Your task to perform on an android device: open the mobile data screen to see how much data has been used Image 0: 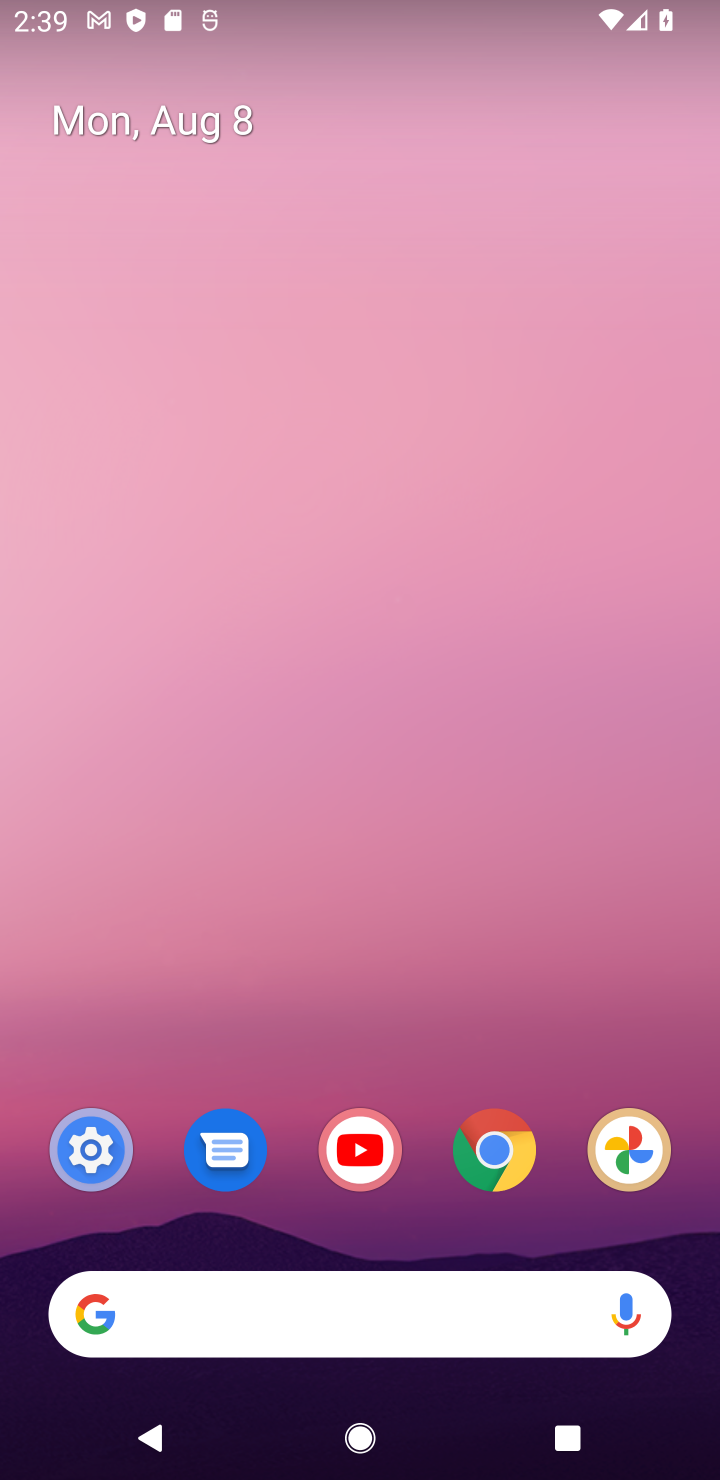
Step 0: click (74, 1178)
Your task to perform on an android device: open the mobile data screen to see how much data has been used Image 1: 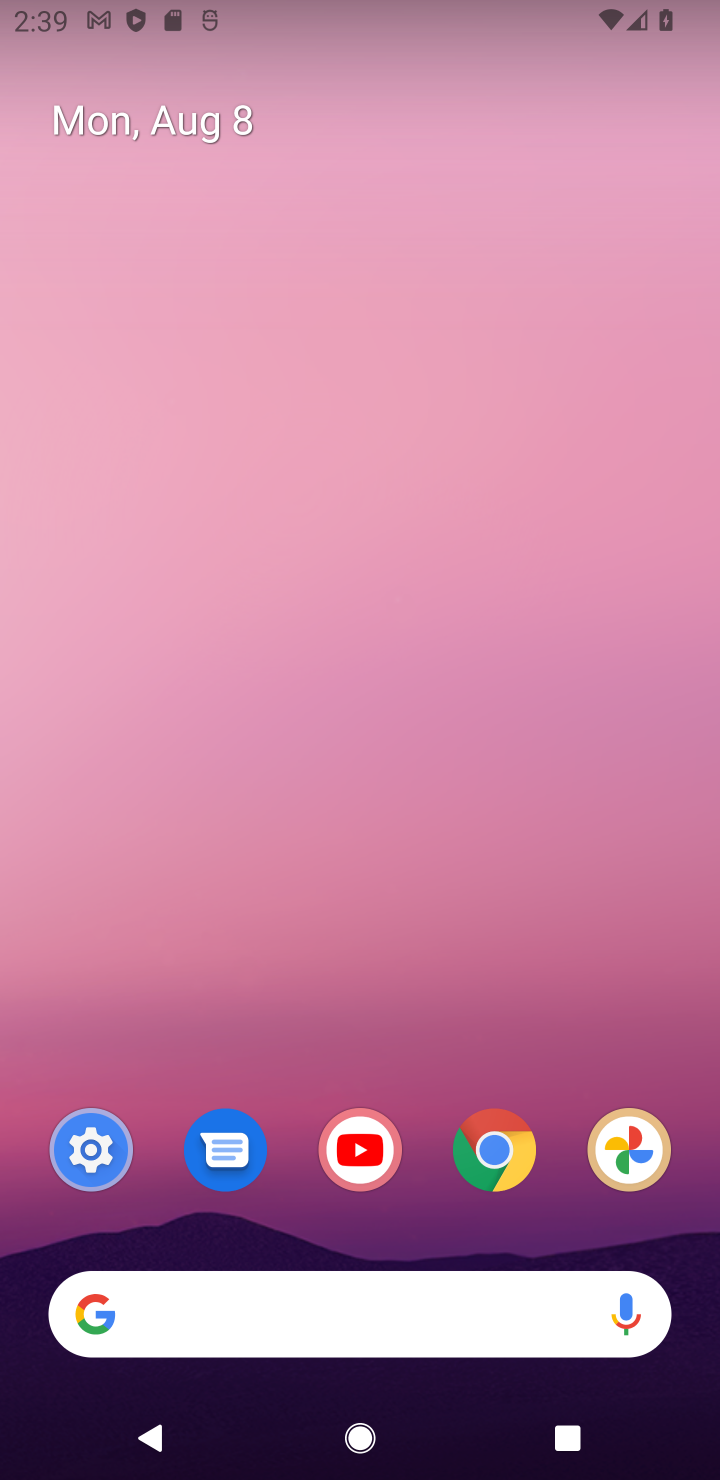
Step 1: click (74, 1169)
Your task to perform on an android device: open the mobile data screen to see how much data has been used Image 2: 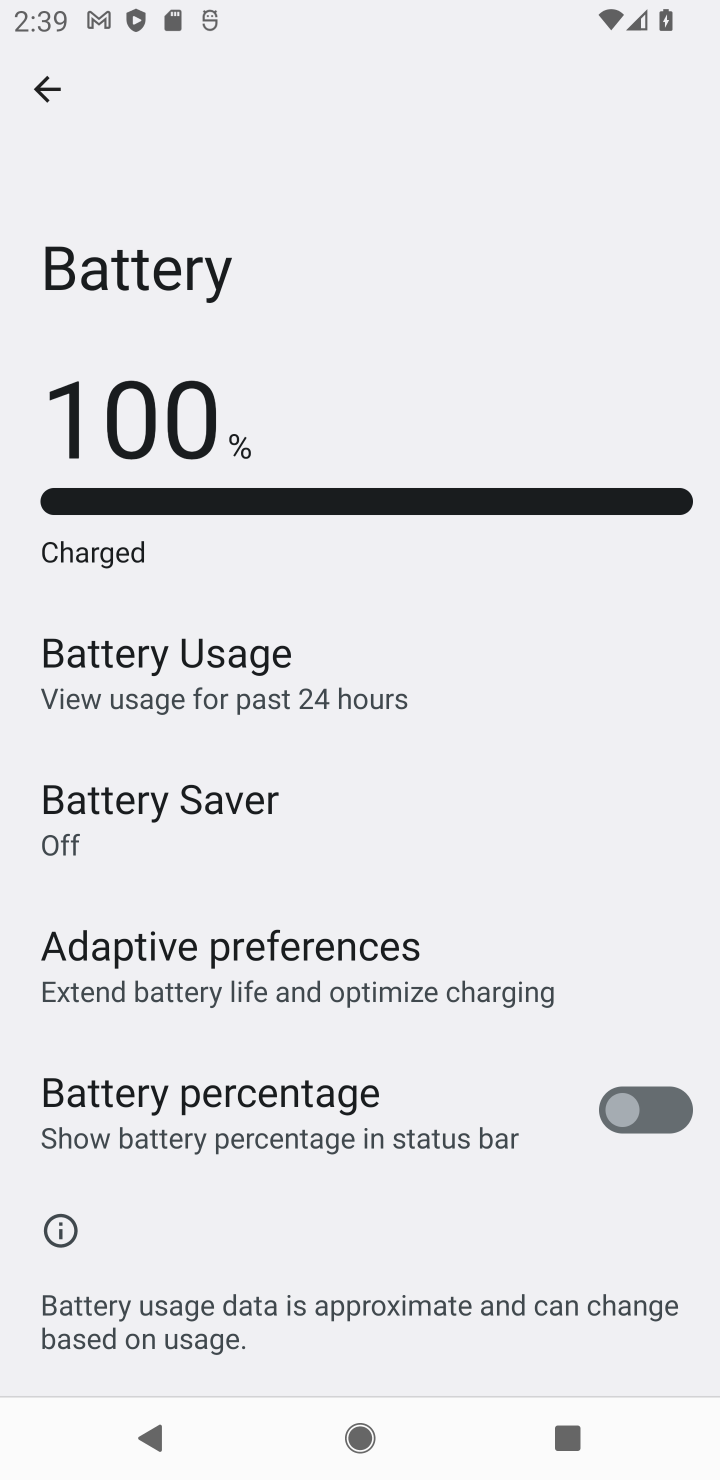
Step 2: click (39, 130)
Your task to perform on an android device: open the mobile data screen to see how much data has been used Image 3: 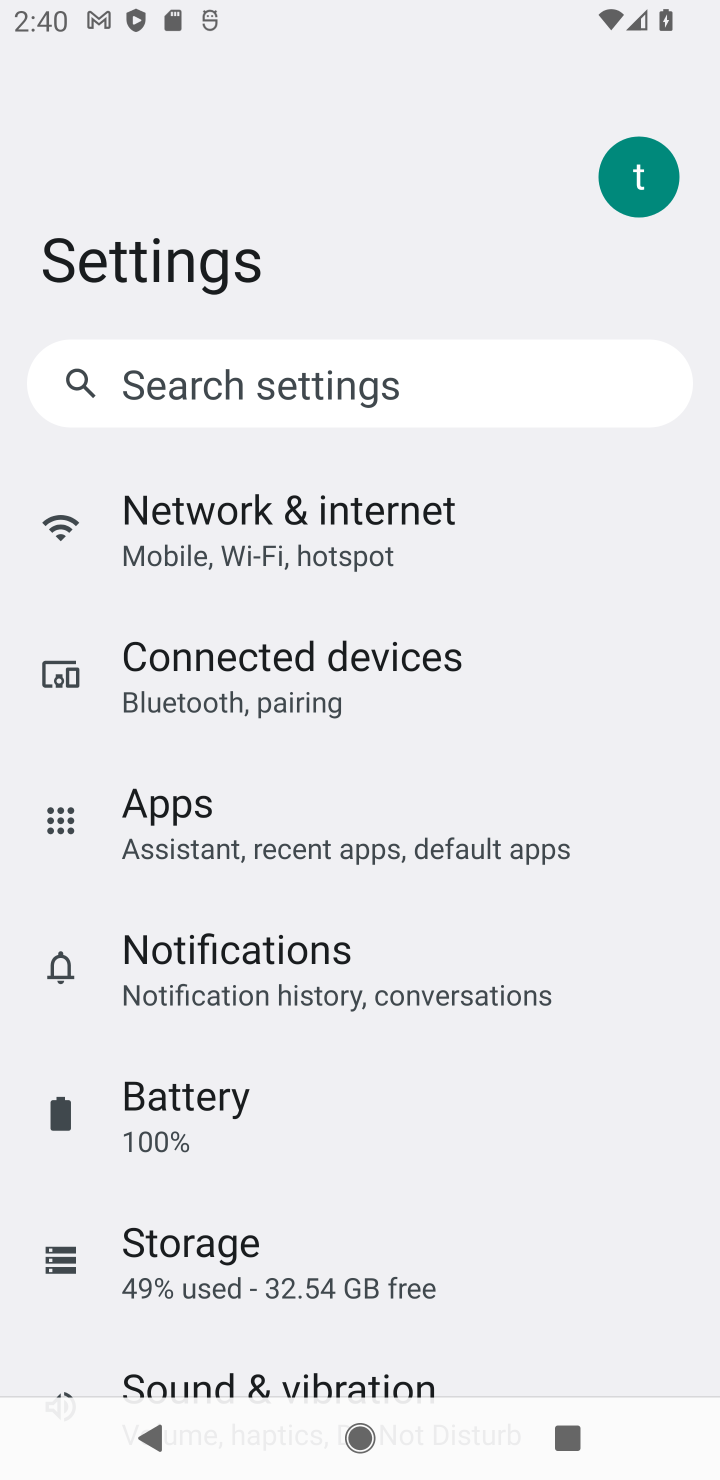
Step 3: click (572, 491)
Your task to perform on an android device: open the mobile data screen to see how much data has been used Image 4: 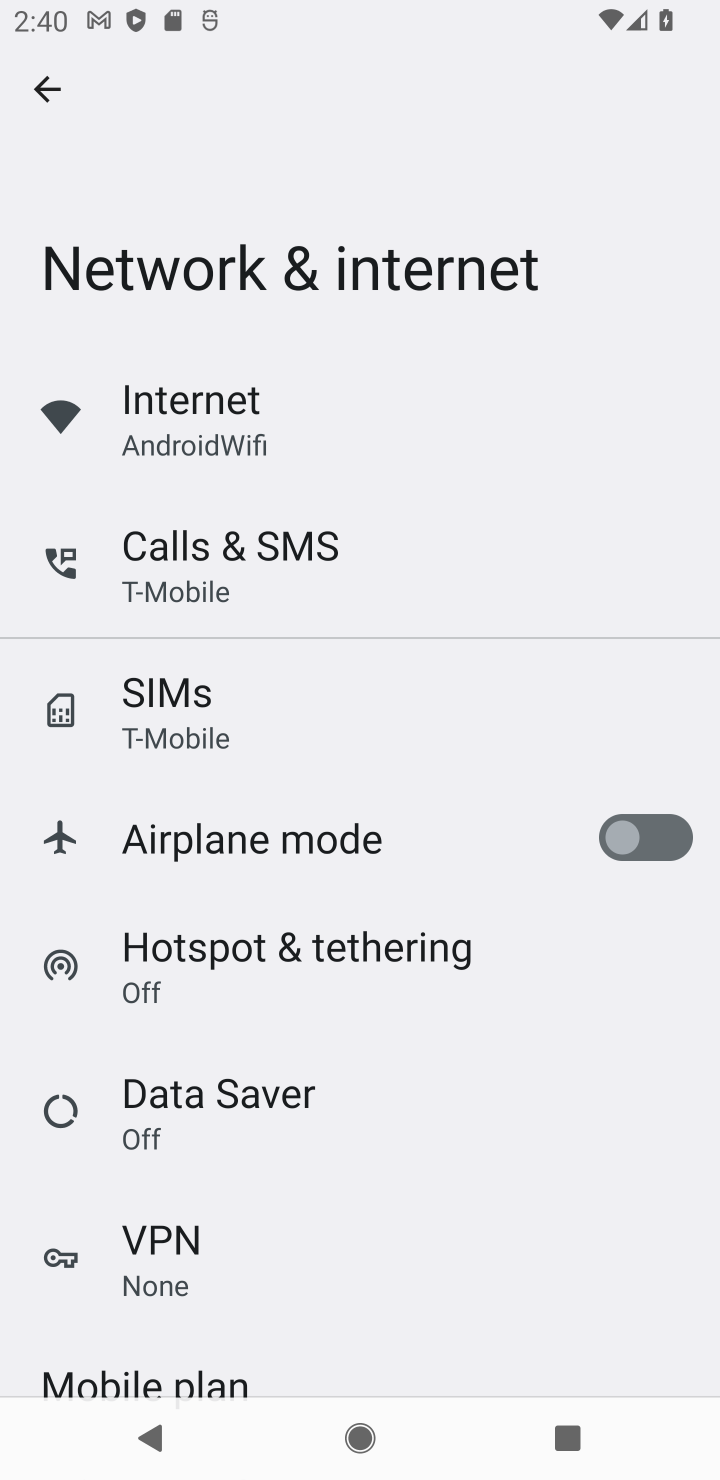
Step 4: task complete